Your task to perform on an android device: Search for Italian restaurants on Maps Image 0: 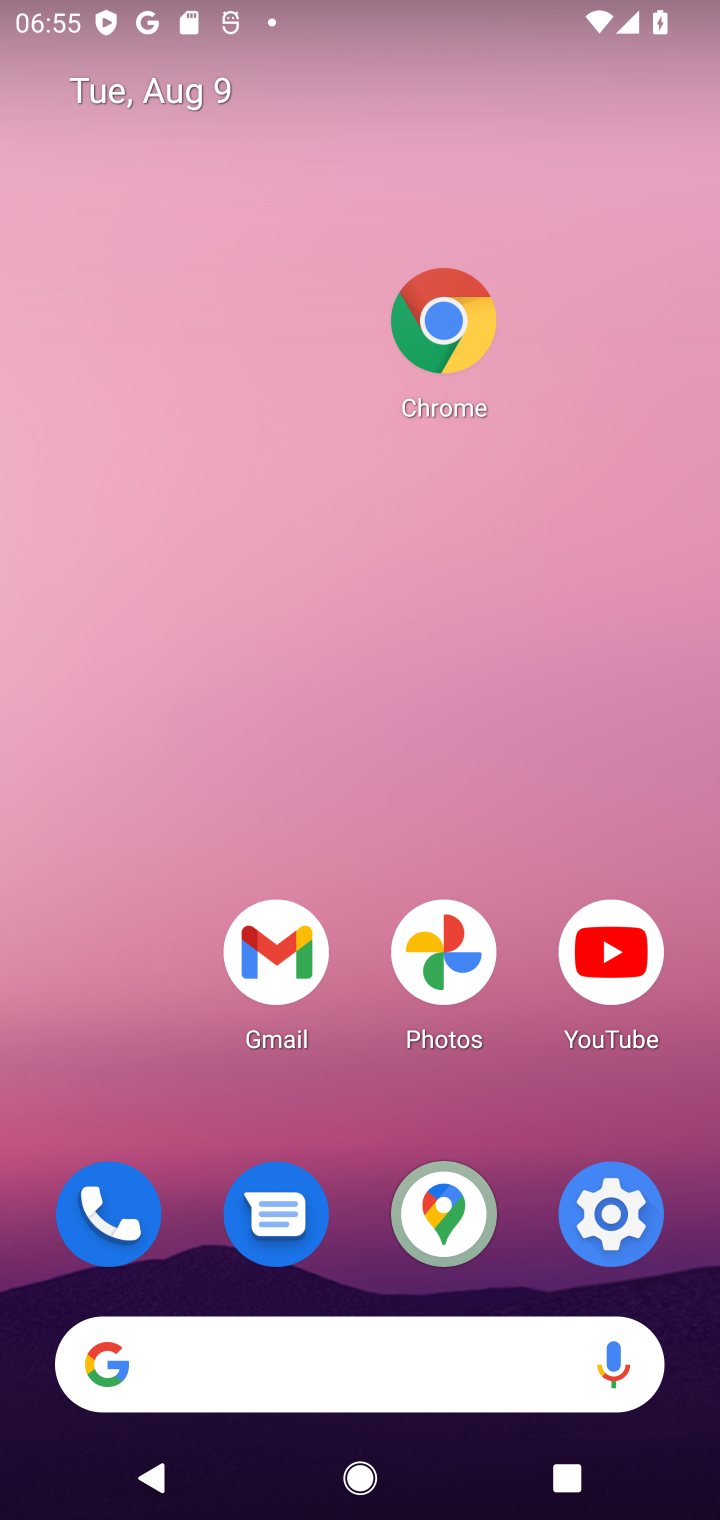
Step 0: press home button
Your task to perform on an android device: Search for Italian restaurants on Maps Image 1: 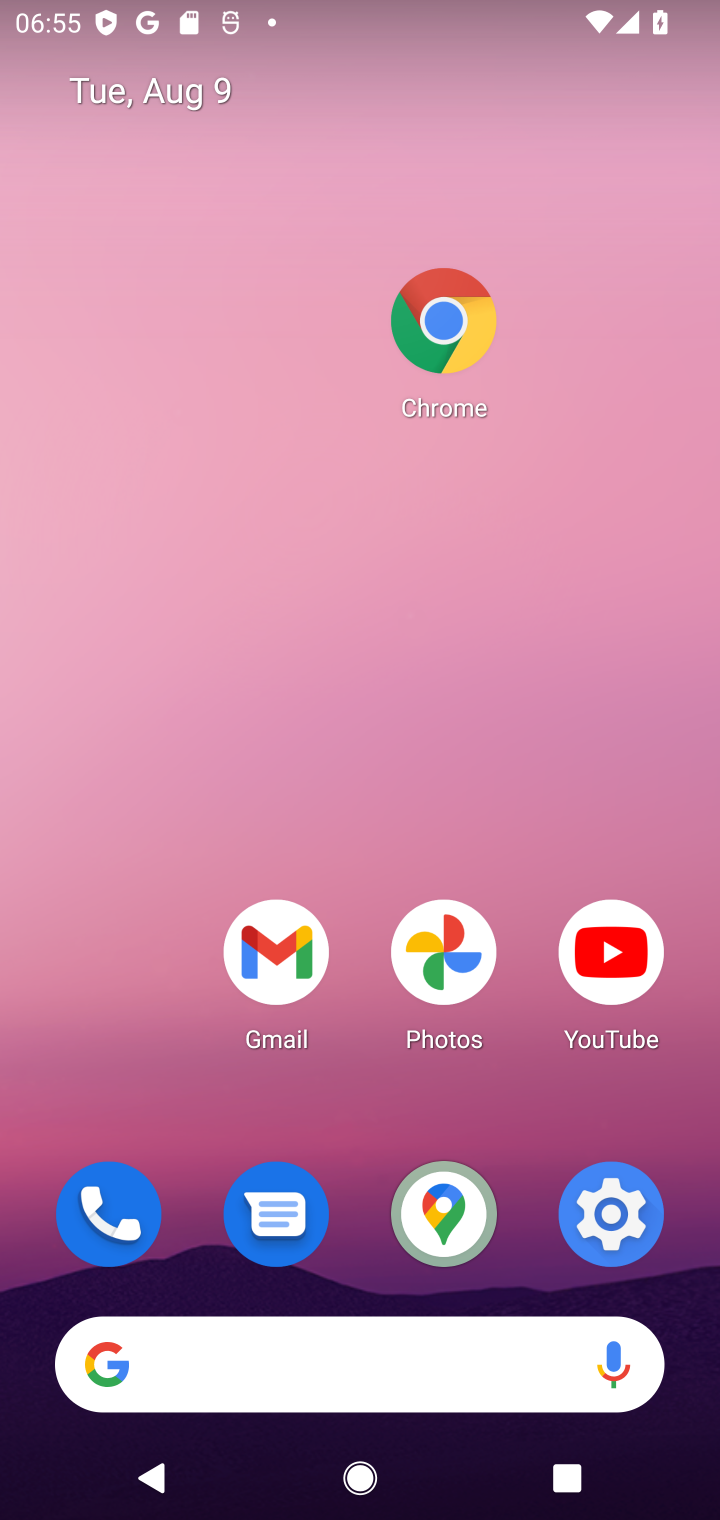
Step 1: drag from (471, 1369) to (342, 400)
Your task to perform on an android device: Search for Italian restaurants on Maps Image 2: 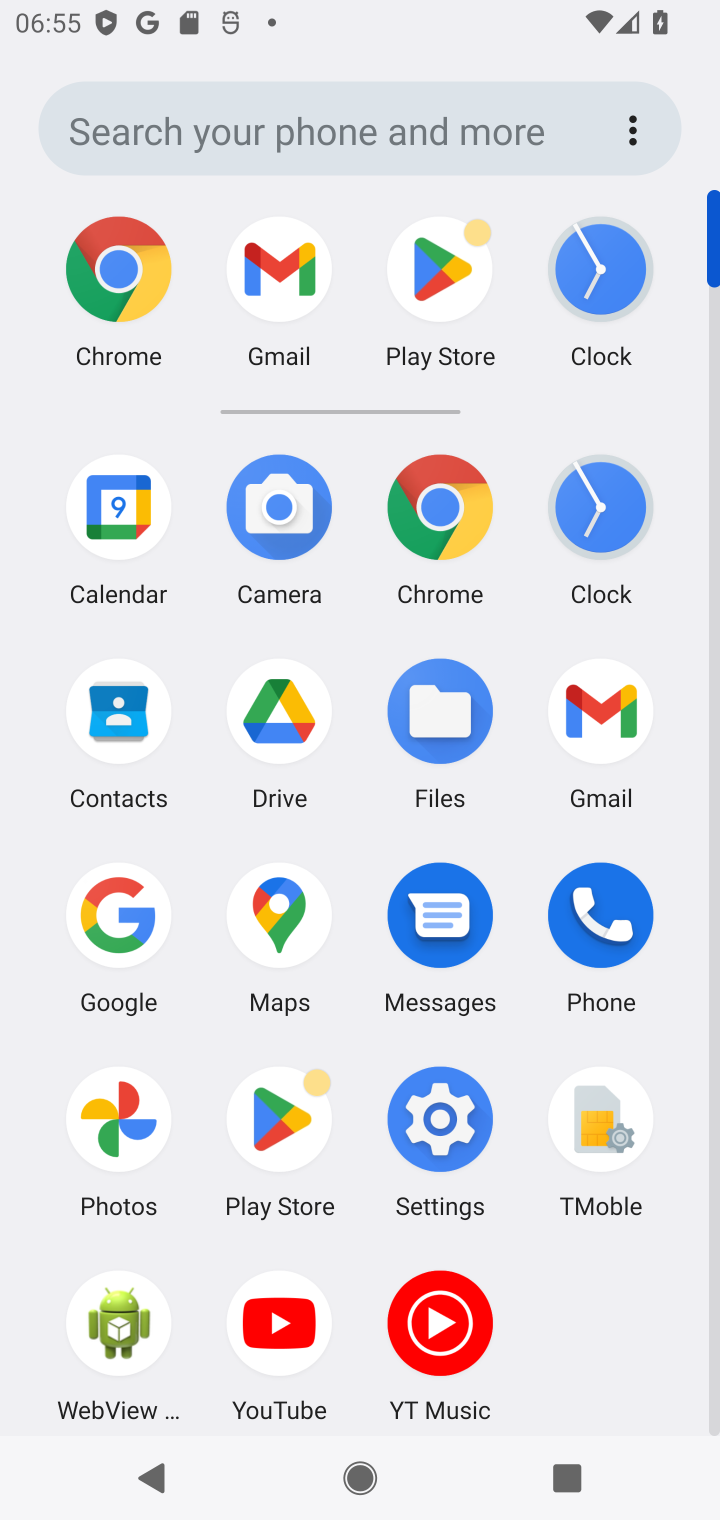
Step 2: click (260, 920)
Your task to perform on an android device: Search for Italian restaurants on Maps Image 3: 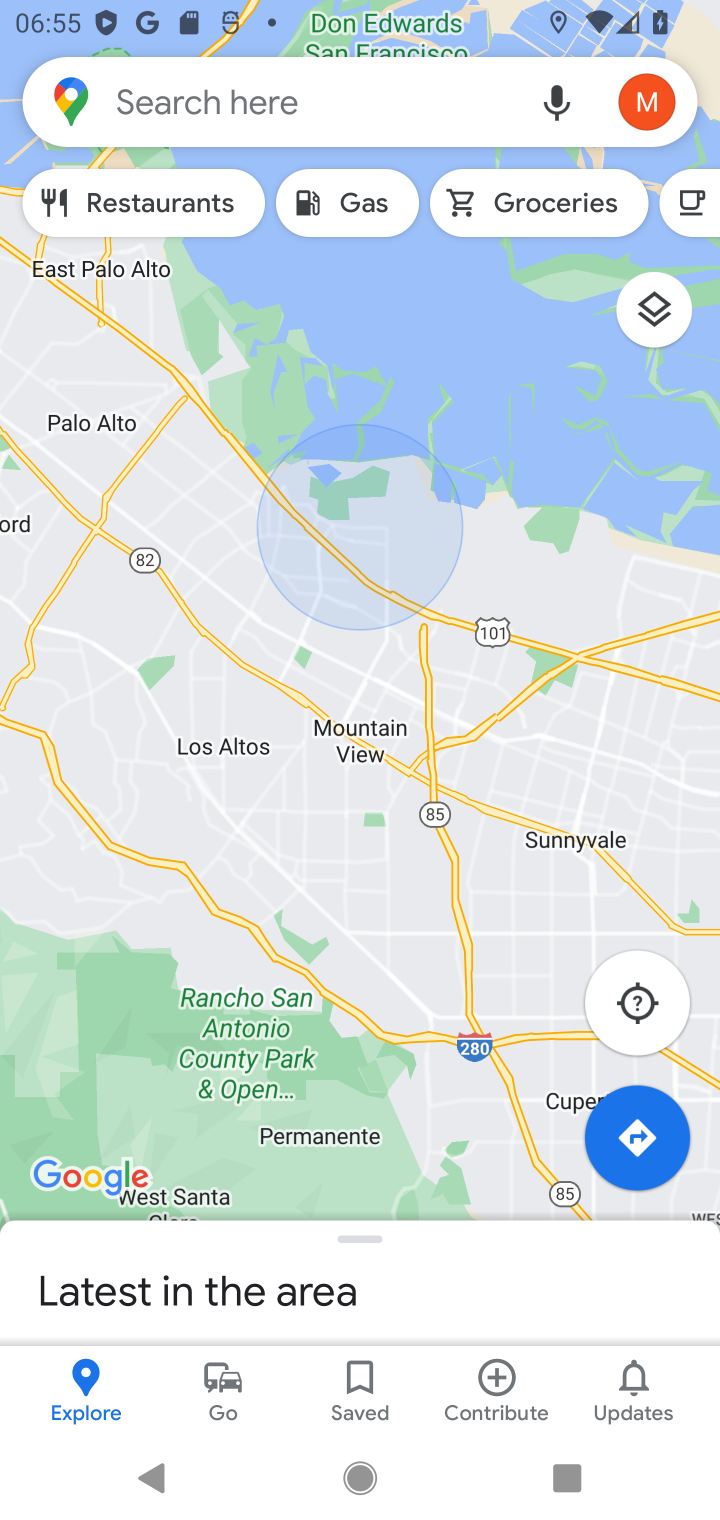
Step 3: click (276, 115)
Your task to perform on an android device: Search for Italian restaurants on Maps Image 4: 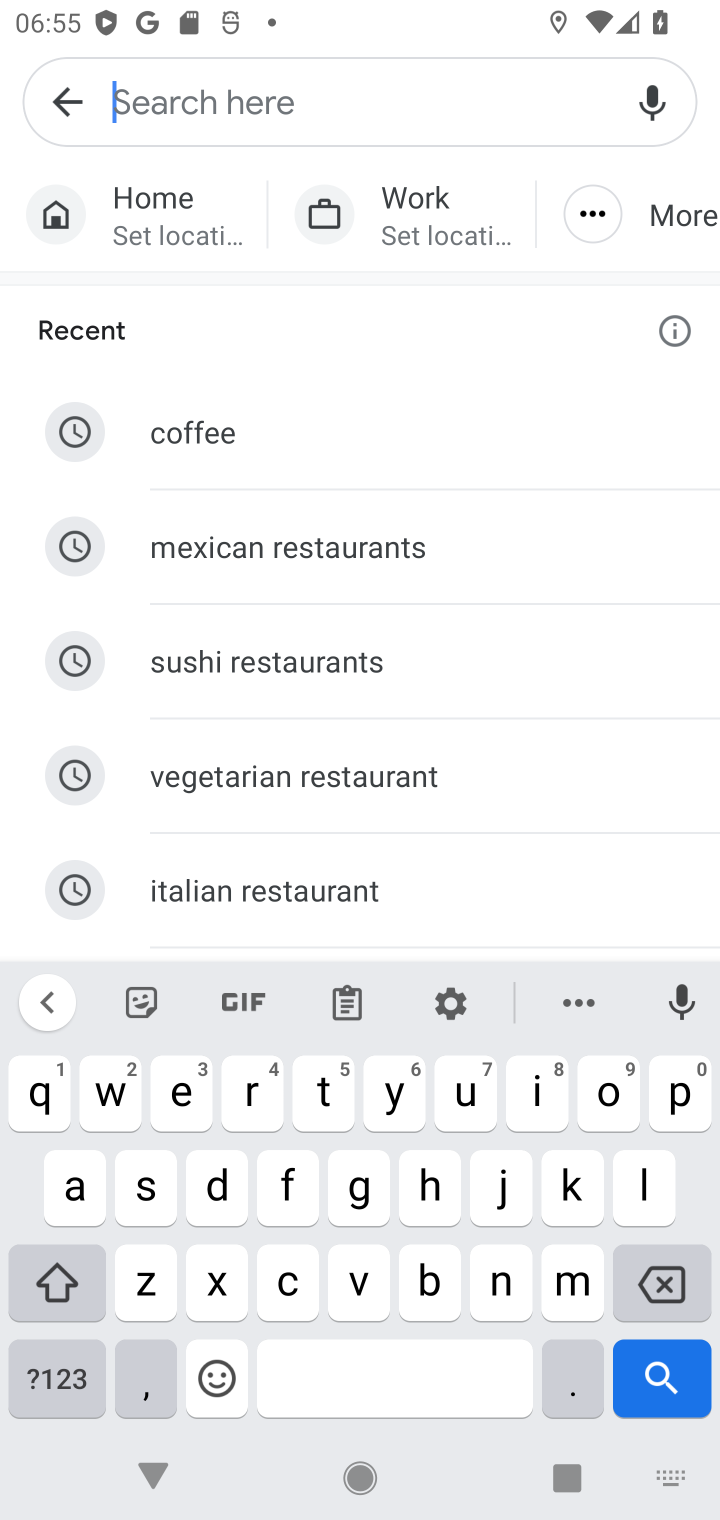
Step 4: click (276, 888)
Your task to perform on an android device: Search for Italian restaurants on Maps Image 5: 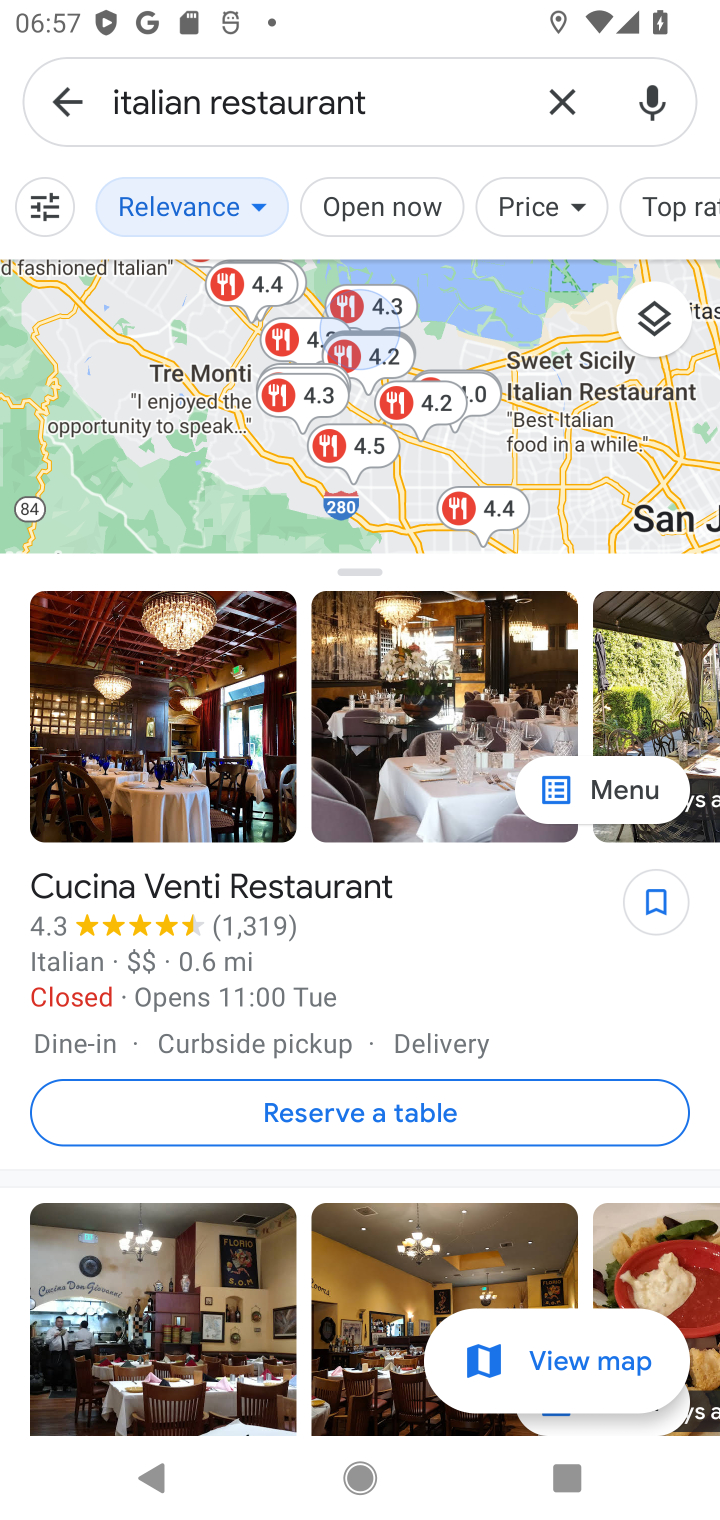
Step 5: task complete